Your task to perform on an android device: Go to accessibility settings Image 0: 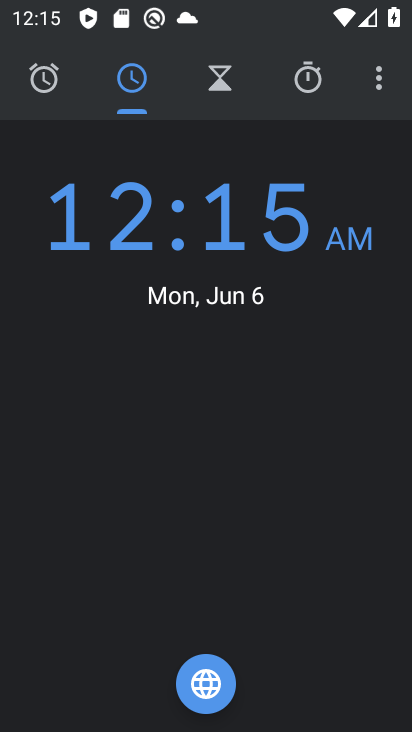
Step 0: press home button
Your task to perform on an android device: Go to accessibility settings Image 1: 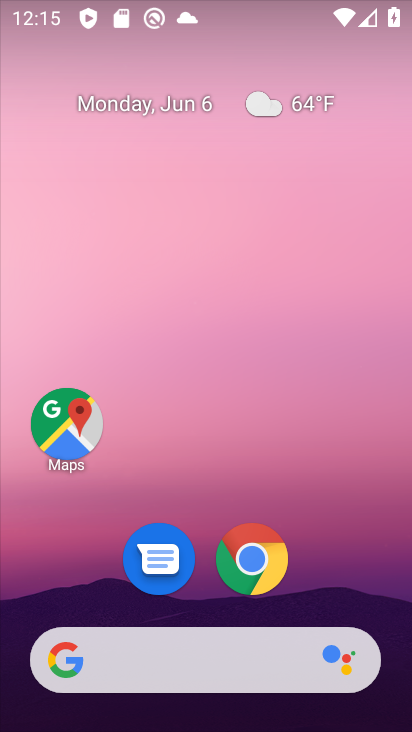
Step 1: drag from (232, 678) to (132, 151)
Your task to perform on an android device: Go to accessibility settings Image 2: 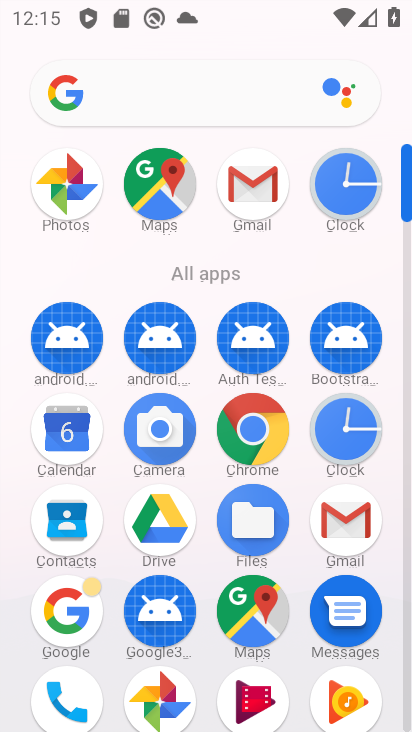
Step 2: drag from (209, 570) to (168, 344)
Your task to perform on an android device: Go to accessibility settings Image 3: 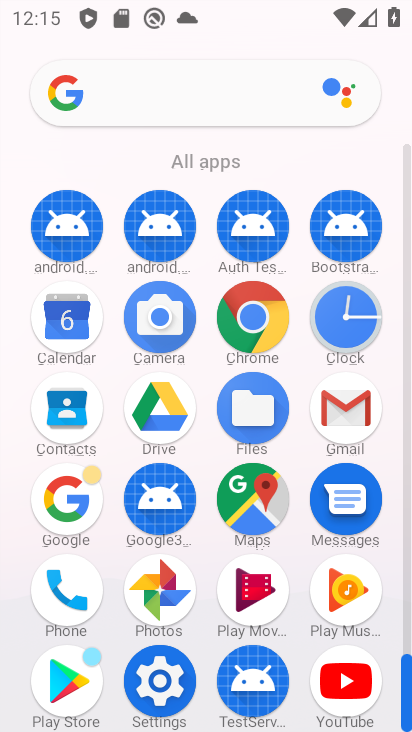
Step 3: click (154, 654)
Your task to perform on an android device: Go to accessibility settings Image 4: 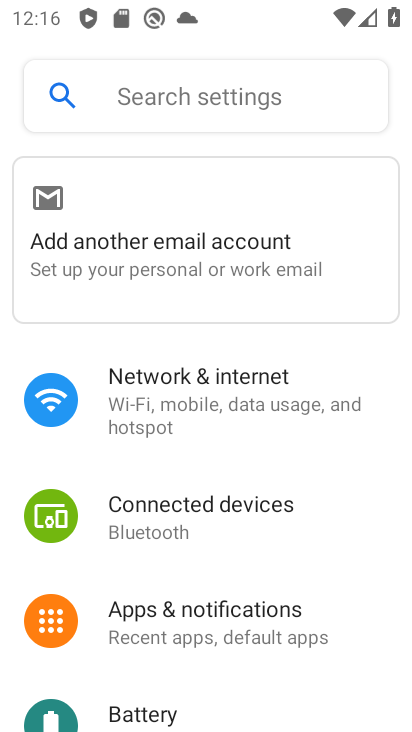
Step 4: click (175, 77)
Your task to perform on an android device: Go to accessibility settings Image 5: 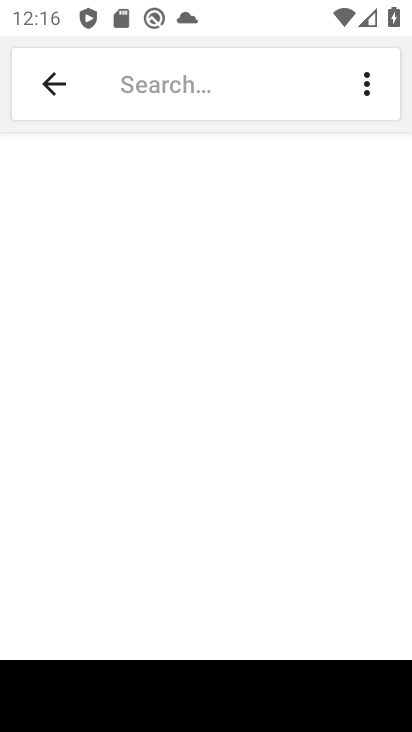
Step 5: drag from (394, 724) to (410, 669)
Your task to perform on an android device: Go to accessibility settings Image 6: 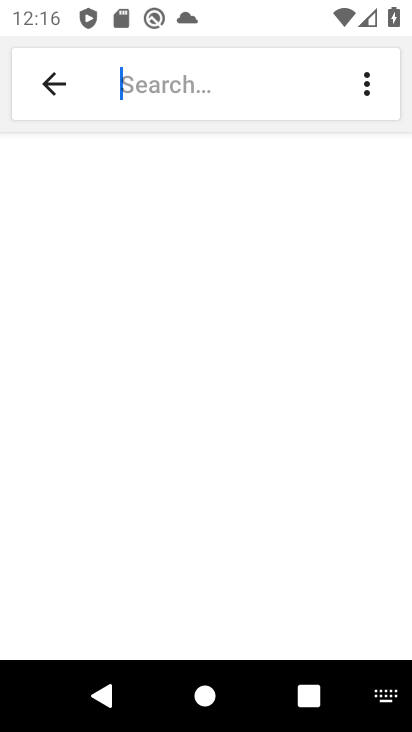
Step 6: click (384, 702)
Your task to perform on an android device: Go to accessibility settings Image 7: 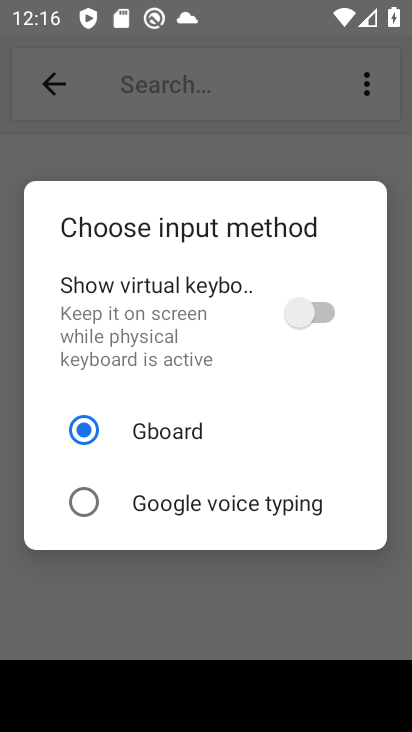
Step 7: click (321, 310)
Your task to perform on an android device: Go to accessibility settings Image 8: 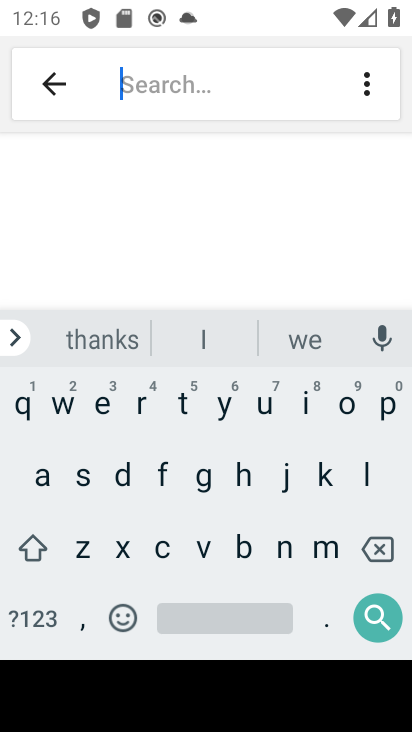
Step 8: click (36, 466)
Your task to perform on an android device: Go to accessibility settings Image 9: 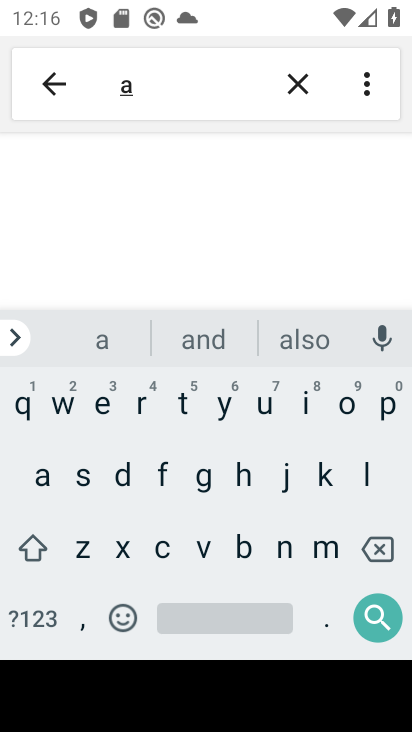
Step 9: click (157, 552)
Your task to perform on an android device: Go to accessibility settings Image 10: 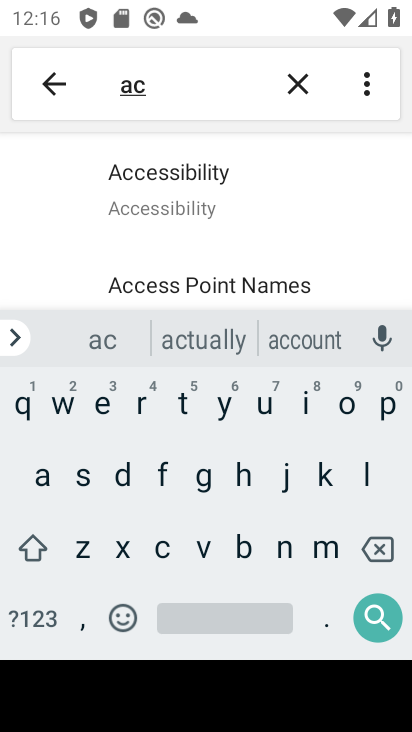
Step 10: click (154, 220)
Your task to perform on an android device: Go to accessibility settings Image 11: 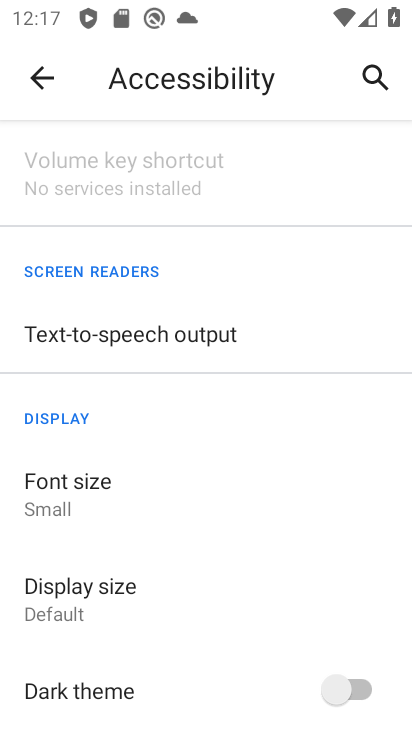
Step 11: task complete